Your task to perform on an android device: Go to settings Image 0: 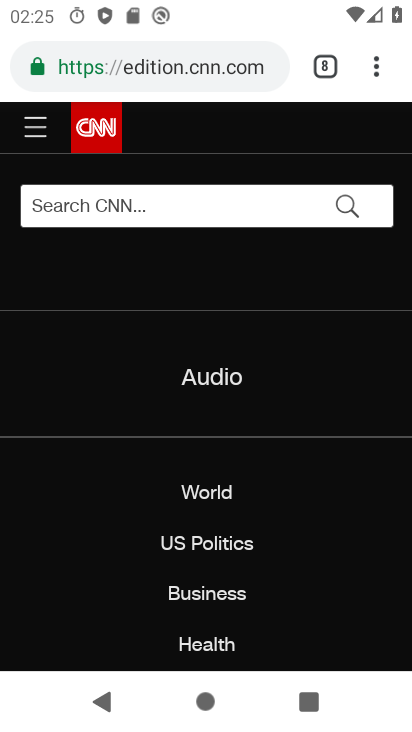
Step 0: press home button
Your task to perform on an android device: Go to settings Image 1: 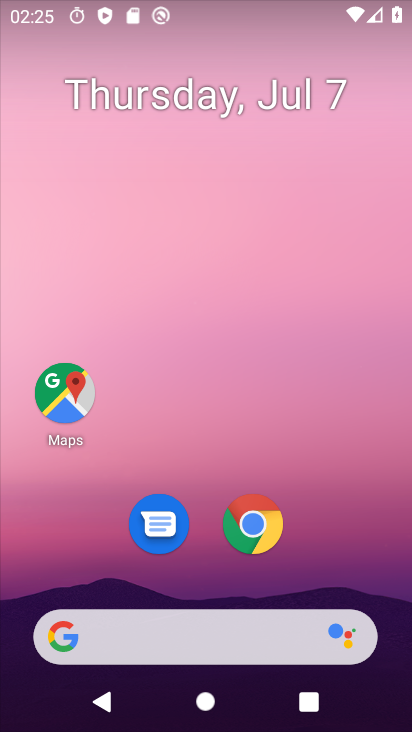
Step 1: drag from (317, 560) to (313, 0)
Your task to perform on an android device: Go to settings Image 2: 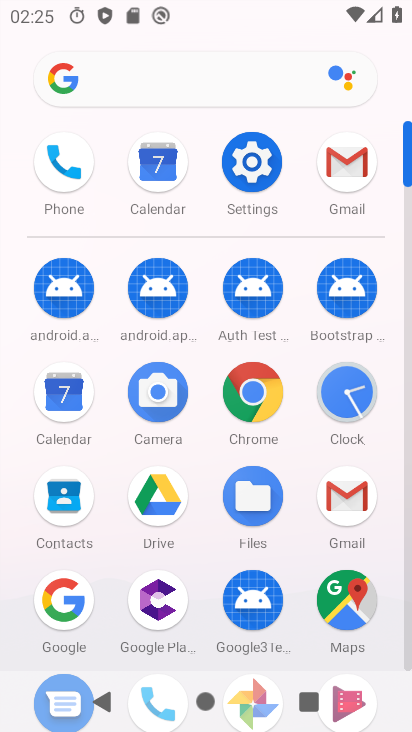
Step 2: click (247, 161)
Your task to perform on an android device: Go to settings Image 3: 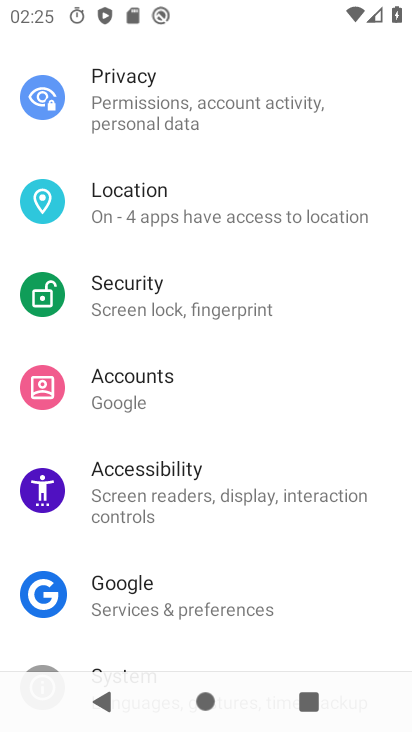
Step 3: task complete